Your task to perform on an android device: make emails show in primary in the gmail app Image 0: 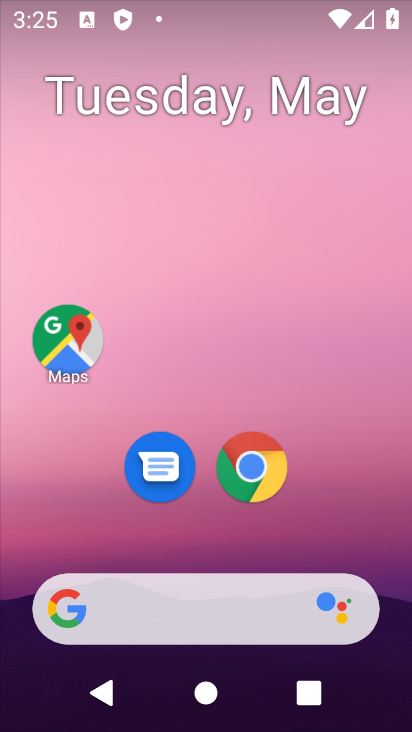
Step 0: task complete